Your task to perform on an android device: Add "bose soundsport free" to the cart on costco.com, then select checkout. Image 0: 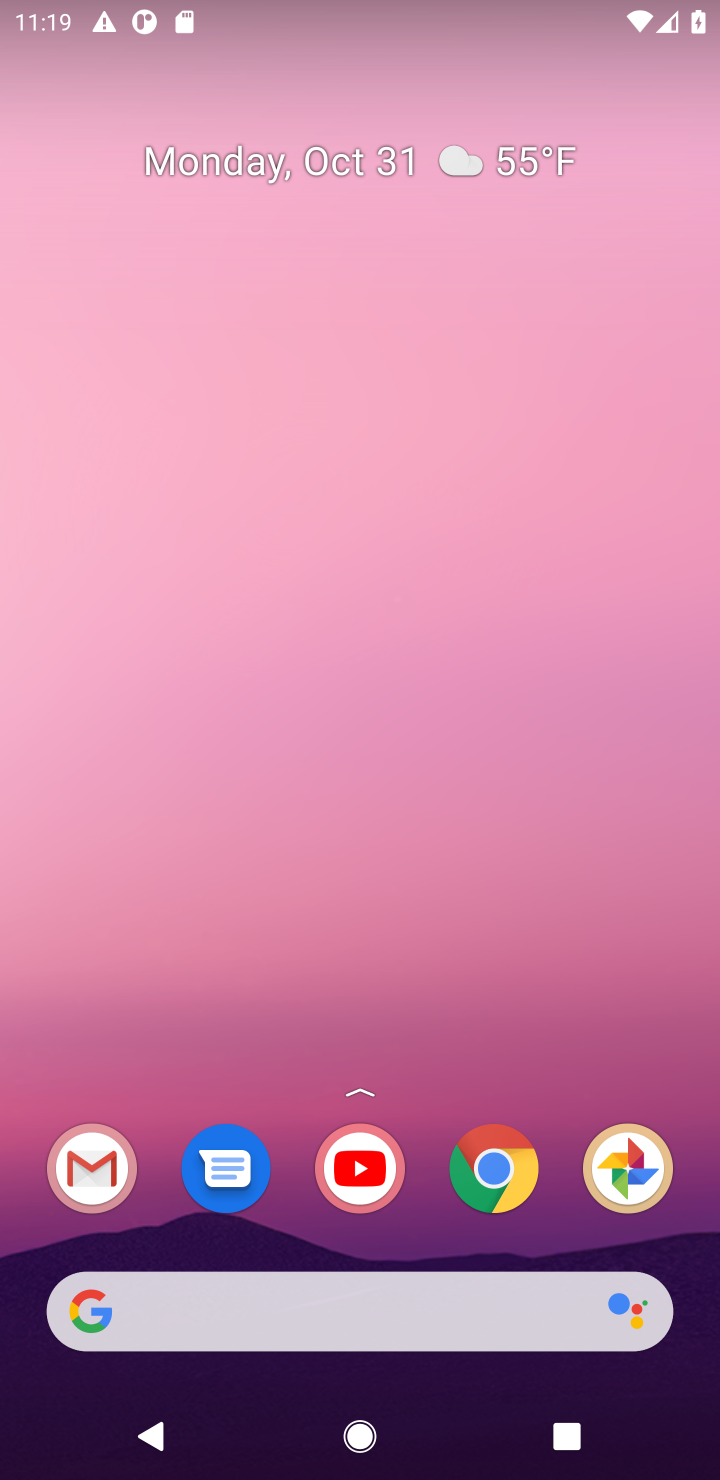
Step 0: click (497, 1170)
Your task to perform on an android device: Add "bose soundsport free" to the cart on costco.com, then select checkout. Image 1: 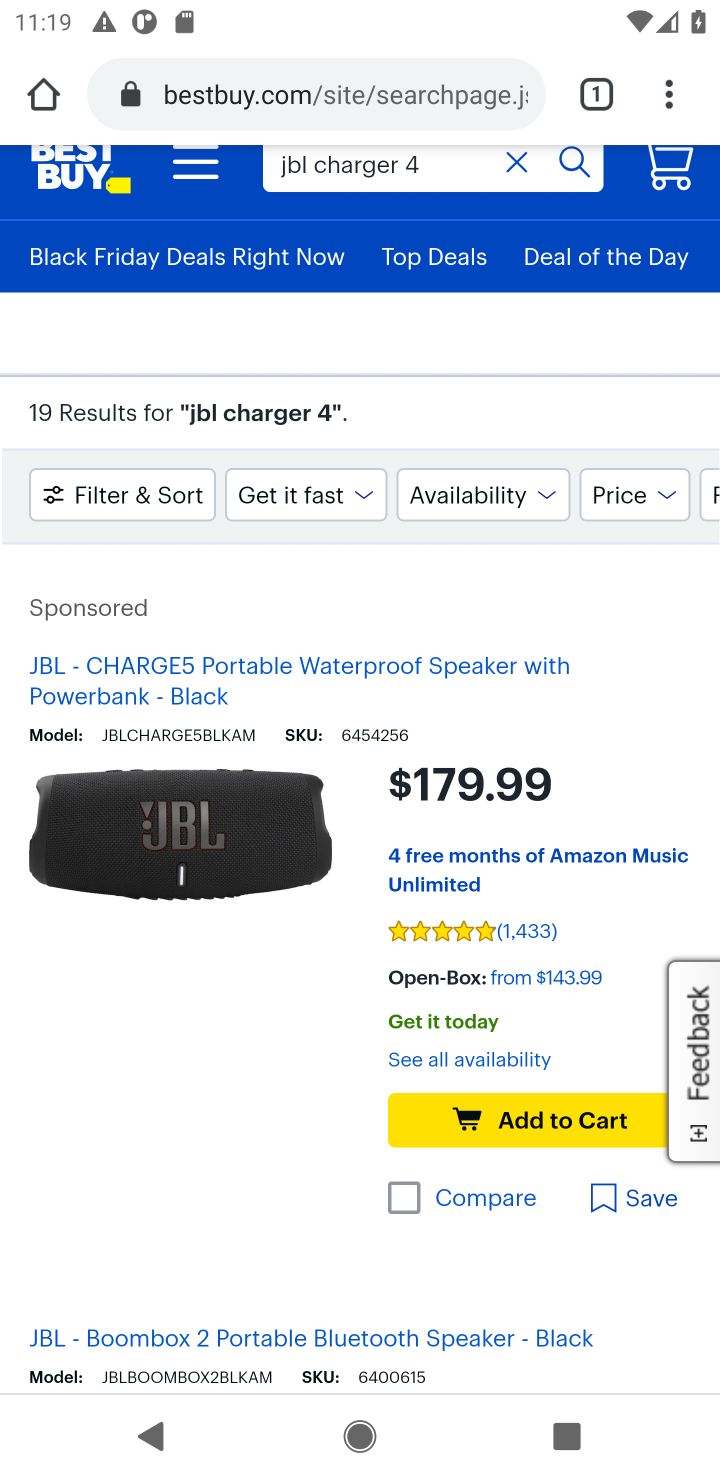
Step 1: click (454, 101)
Your task to perform on an android device: Add "bose soundsport free" to the cart on costco.com, then select checkout. Image 2: 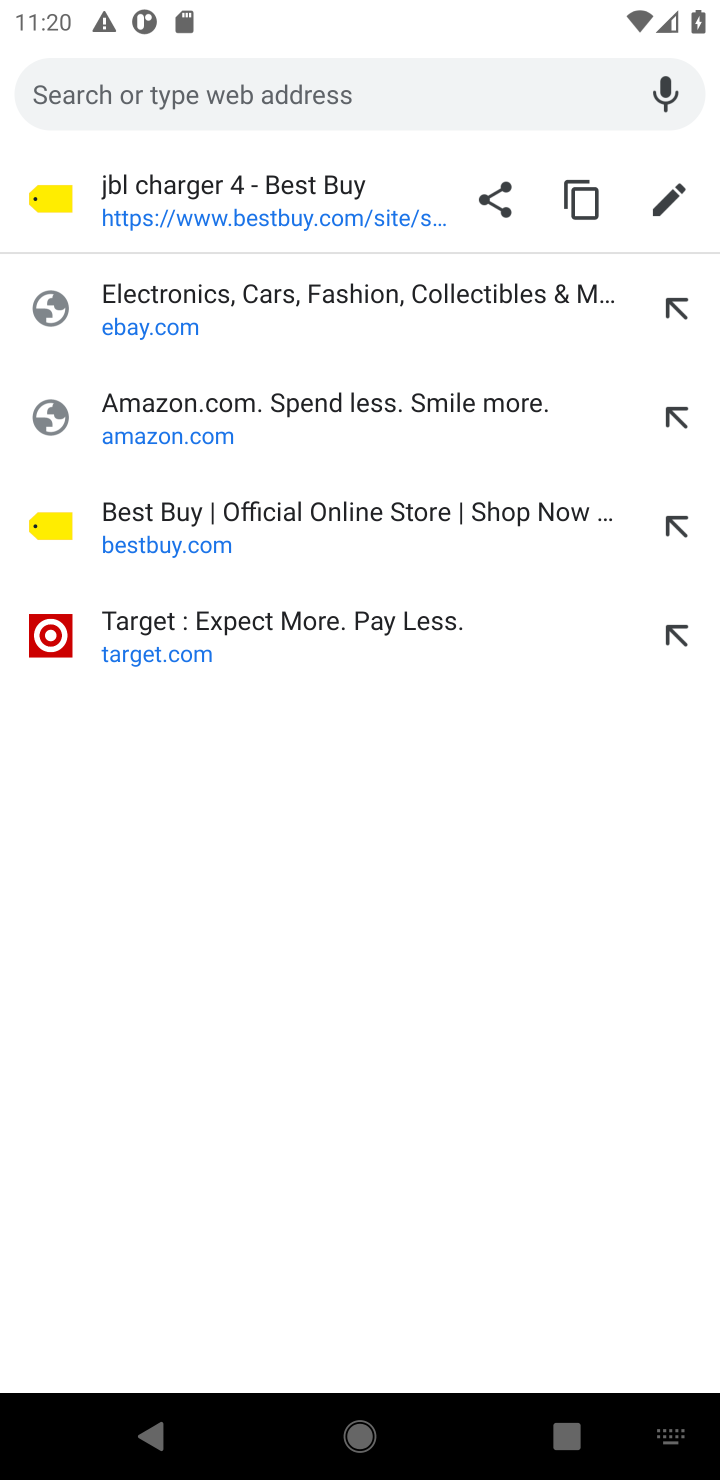
Step 2: type "usb-c to usb-b"
Your task to perform on an android device: Add "bose soundsport free" to the cart on costco.com, then select checkout. Image 3: 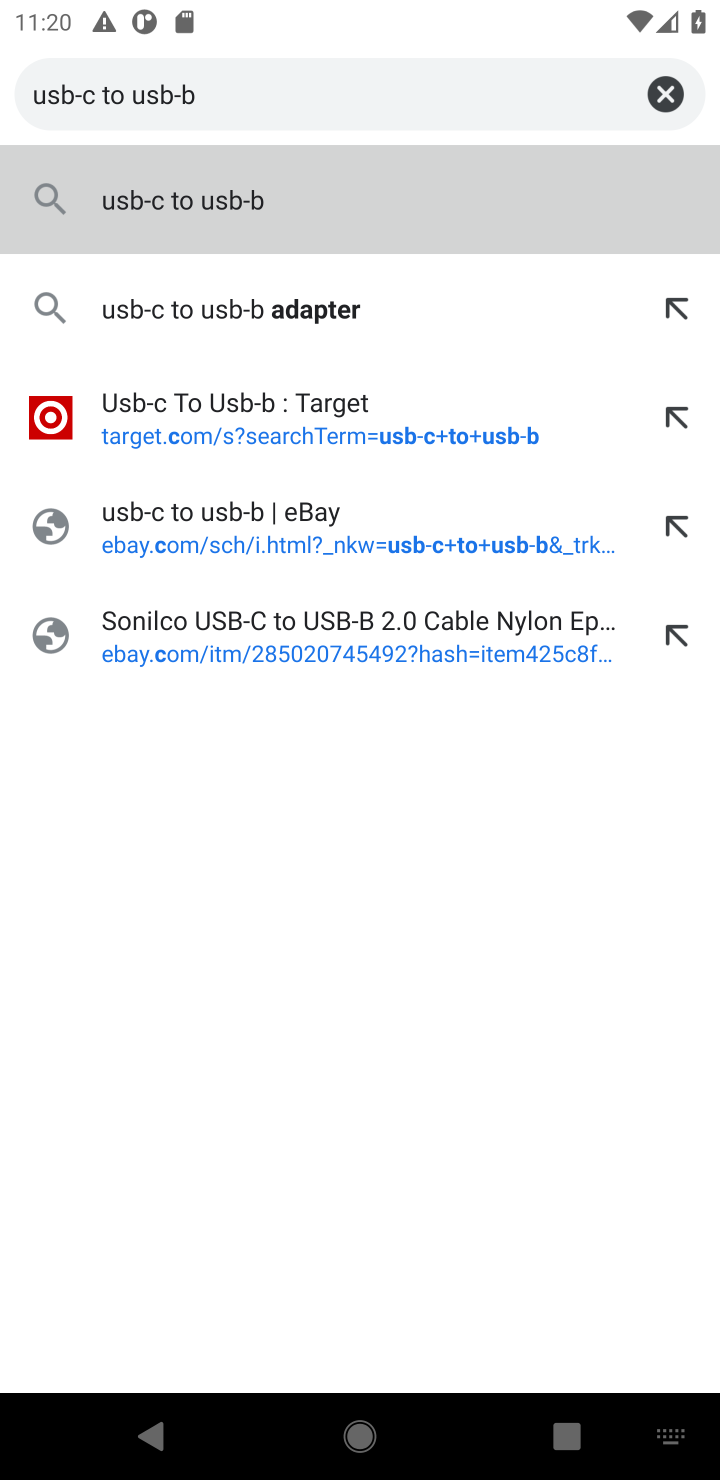
Step 3: click (196, 216)
Your task to perform on an android device: Add "bose soundsport free" to the cart on costco.com, then select checkout. Image 4: 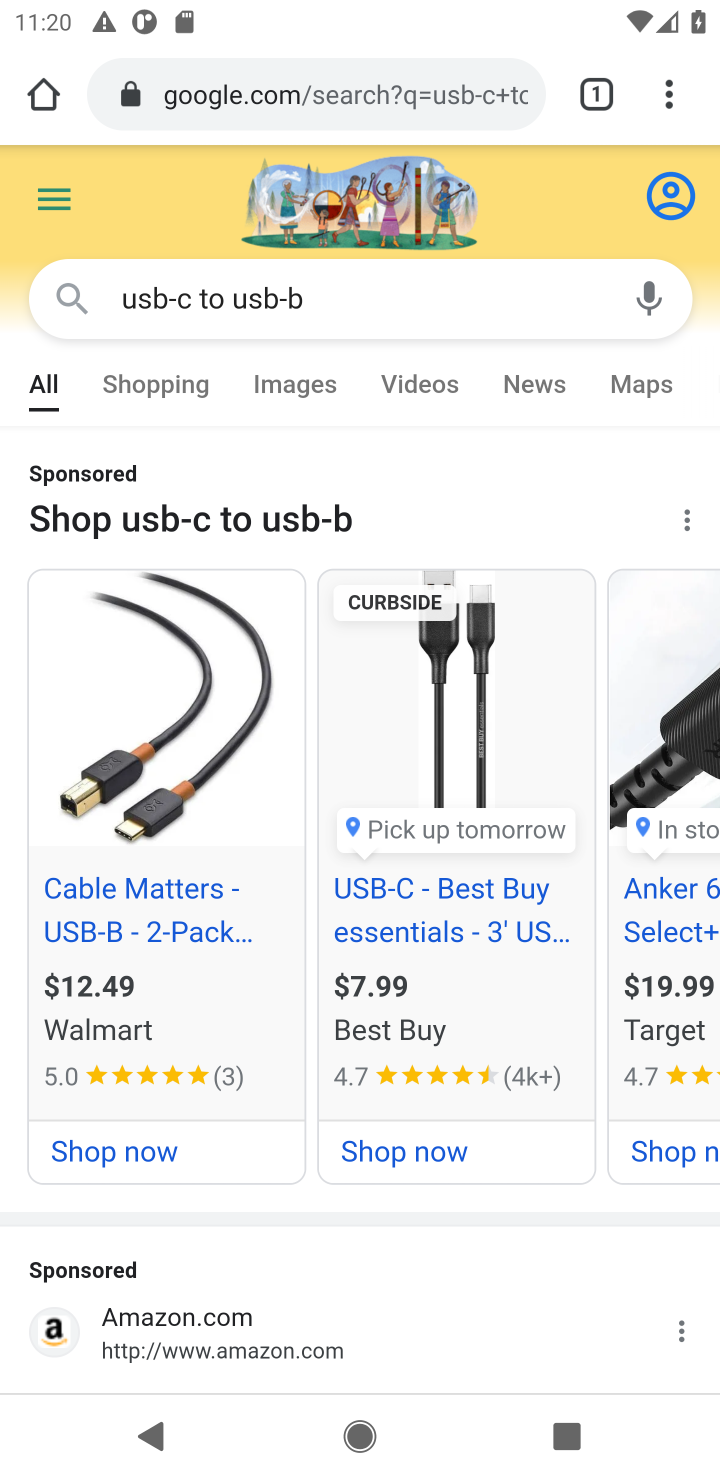
Step 4: click (271, 85)
Your task to perform on an android device: Add "bose soundsport free" to the cart on costco.com, then select checkout. Image 5: 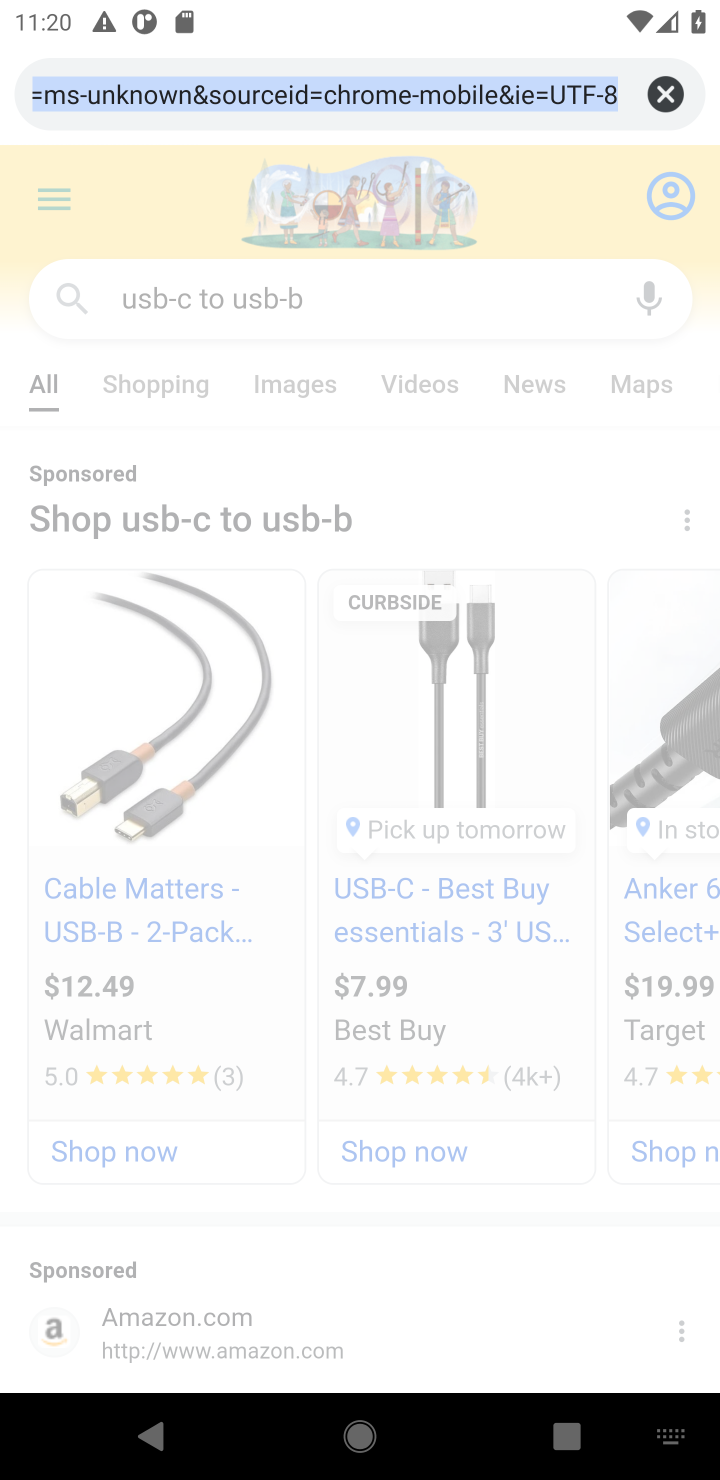
Step 5: type "costco.com"
Your task to perform on an android device: Add "bose soundsport free" to the cart on costco.com, then select checkout. Image 6: 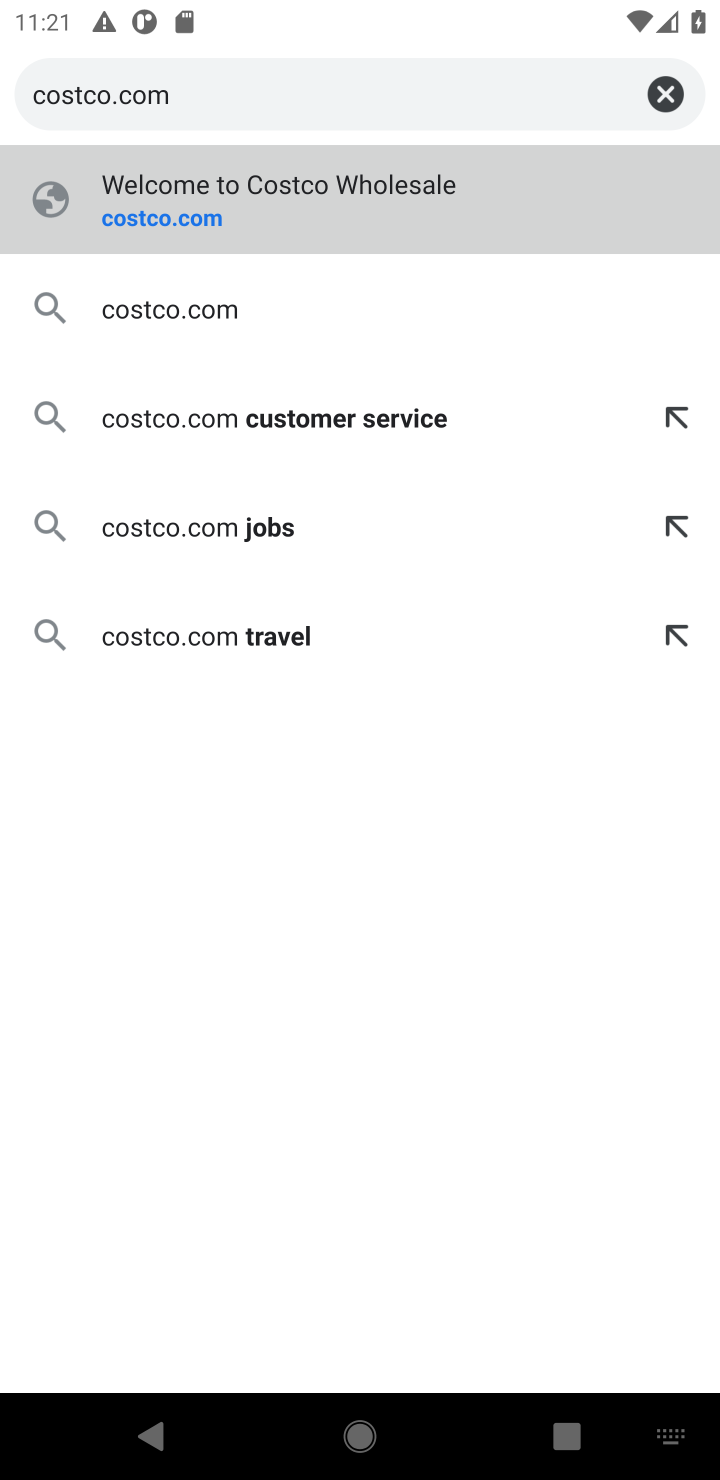
Step 6: click (267, 203)
Your task to perform on an android device: Add "bose soundsport free" to the cart on costco.com, then select checkout. Image 7: 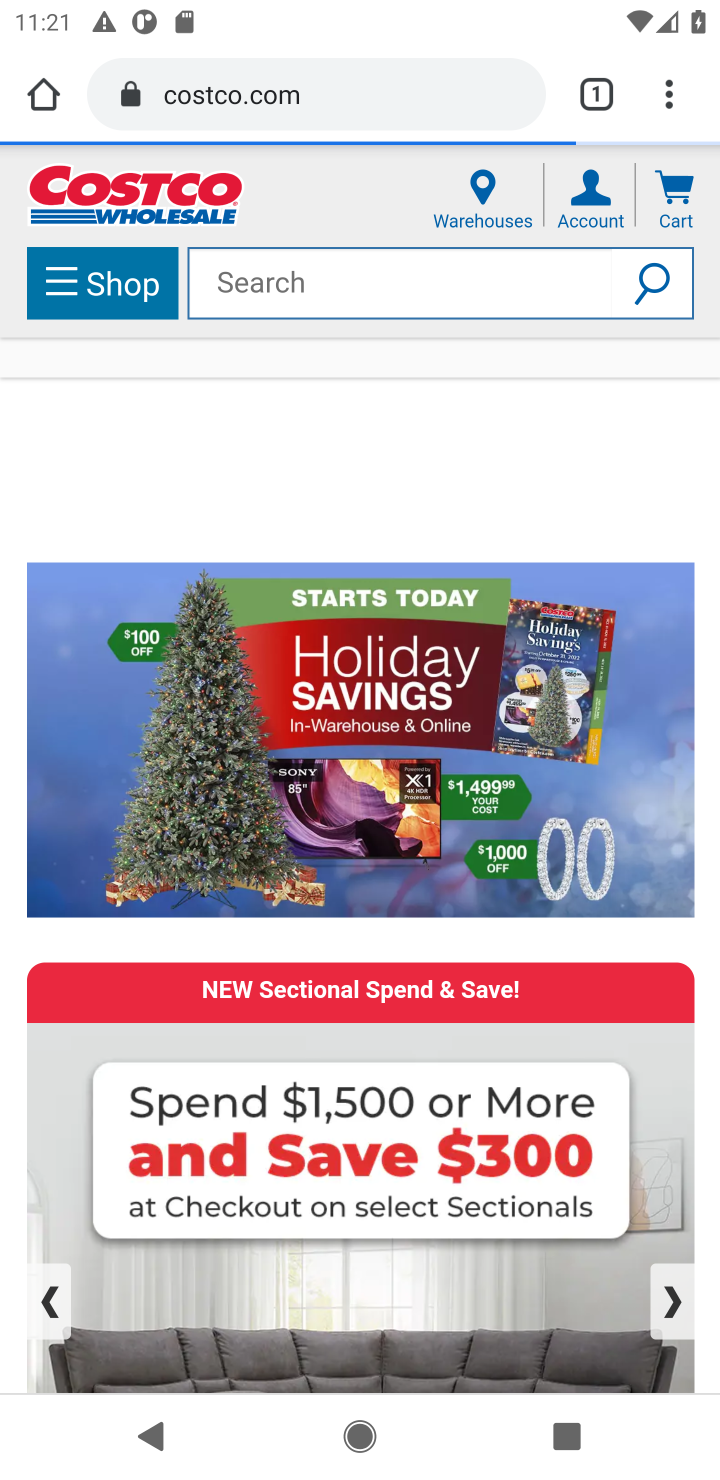
Step 7: click (297, 275)
Your task to perform on an android device: Add "bose soundsport free" to the cart on costco.com, then select checkout. Image 8: 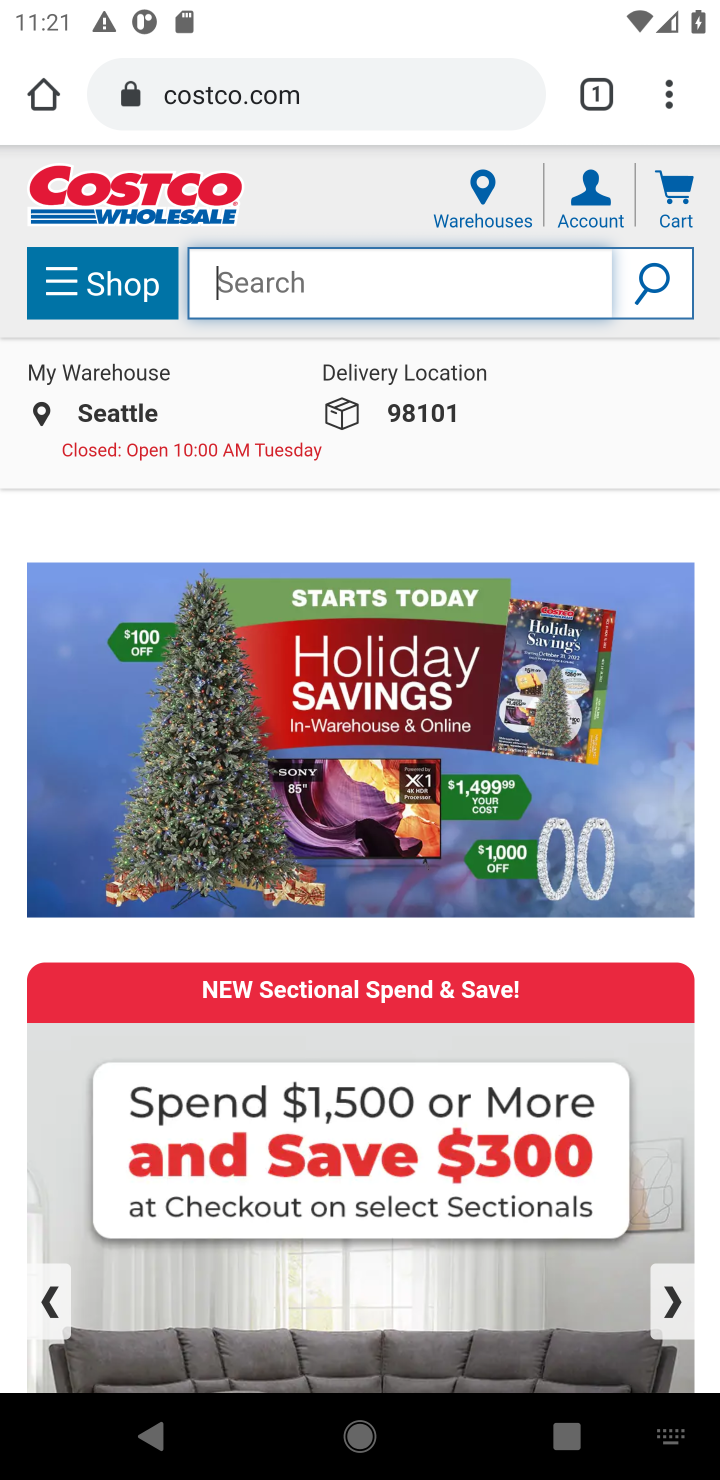
Step 8: click (348, 294)
Your task to perform on an android device: Add "bose soundsport free" to the cart on costco.com, then select checkout. Image 9: 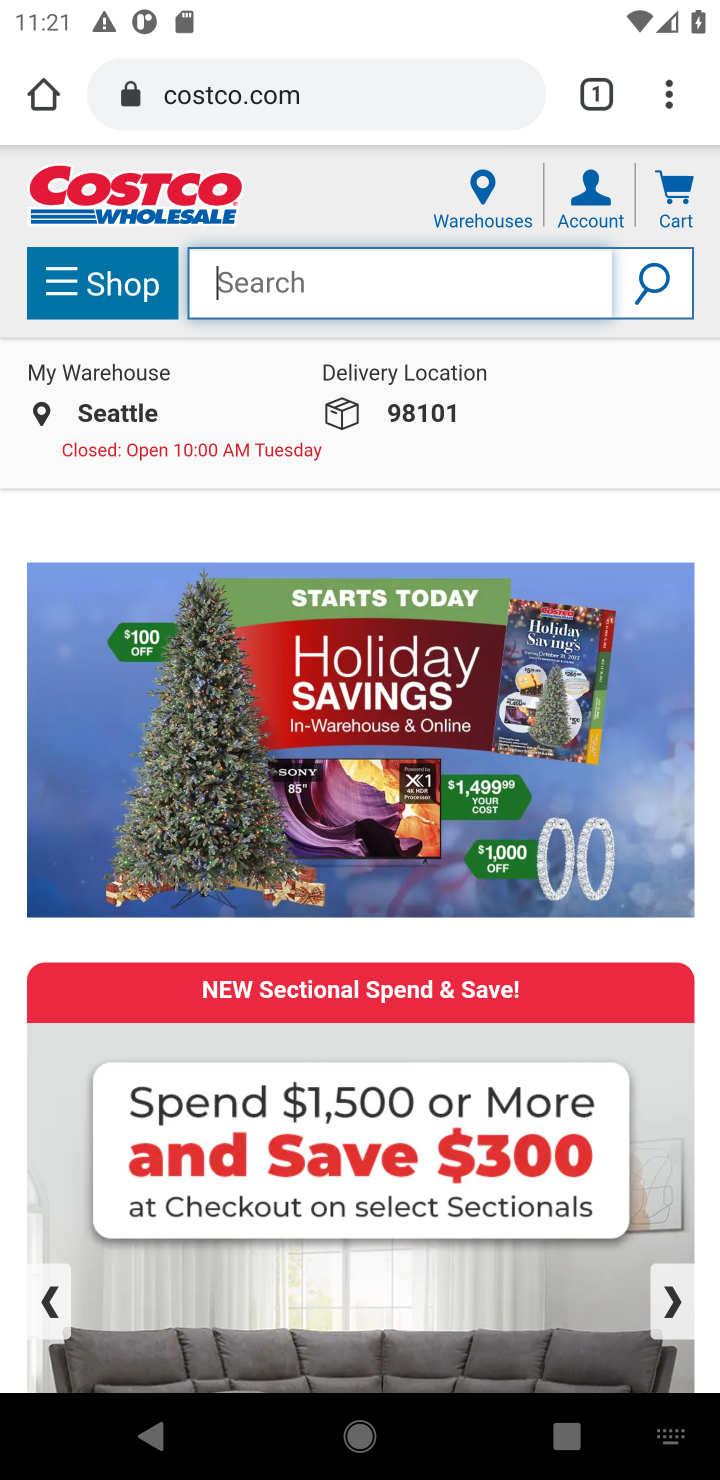
Step 9: type "bose soundsport free"
Your task to perform on an android device: Add "bose soundsport free" to the cart on costco.com, then select checkout. Image 10: 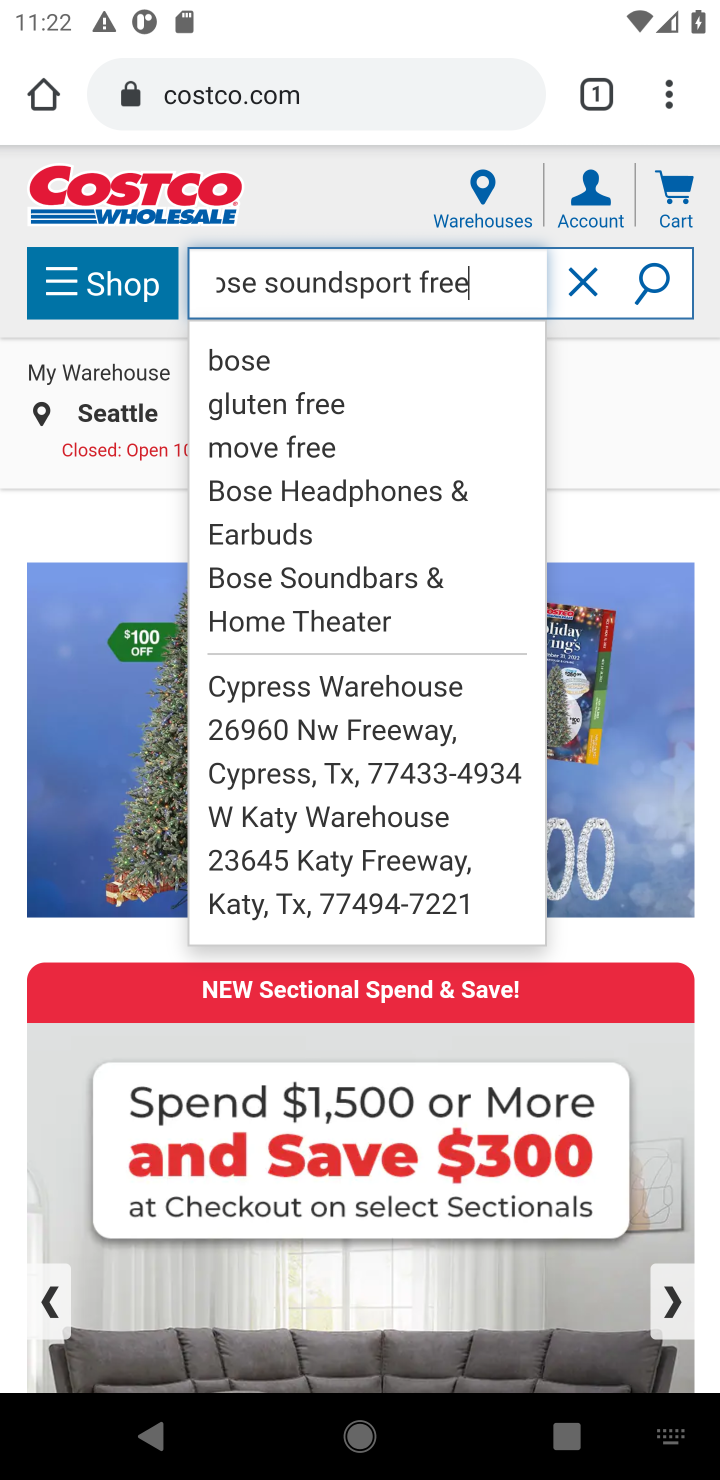
Step 10: click (664, 274)
Your task to perform on an android device: Add "bose soundsport free" to the cart on costco.com, then select checkout. Image 11: 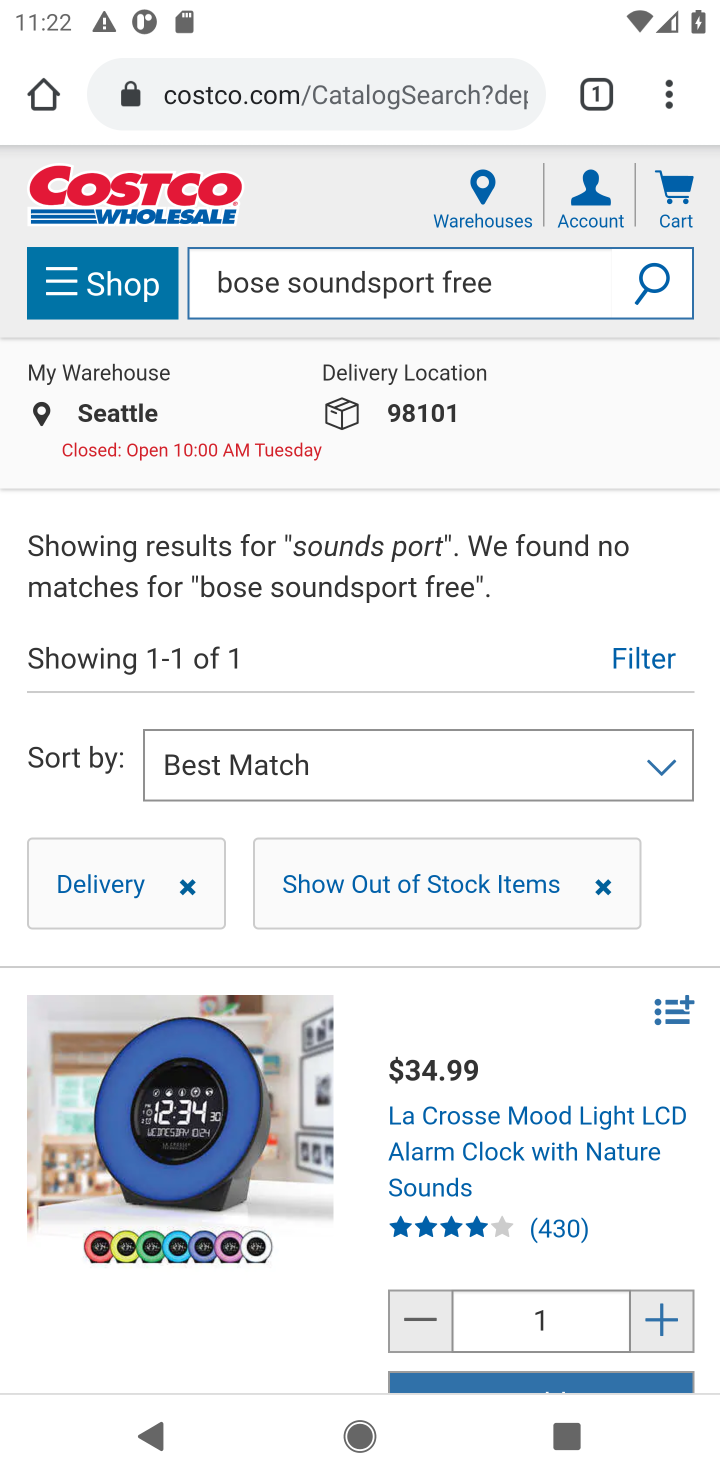
Step 11: drag from (482, 944) to (481, 463)
Your task to perform on an android device: Add "bose soundsport free" to the cart on costco.com, then select checkout. Image 12: 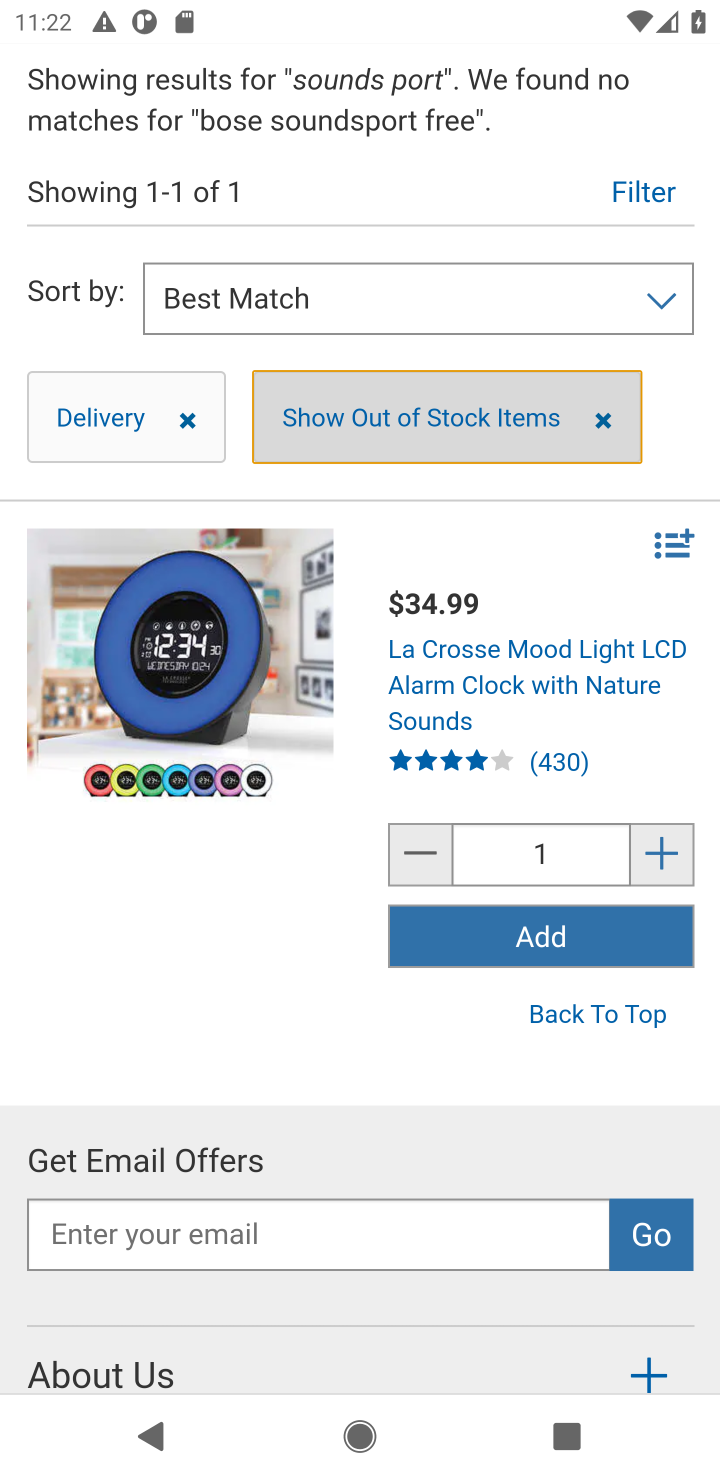
Step 12: drag from (447, 527) to (485, 329)
Your task to perform on an android device: Add "bose soundsport free" to the cart on costco.com, then select checkout. Image 13: 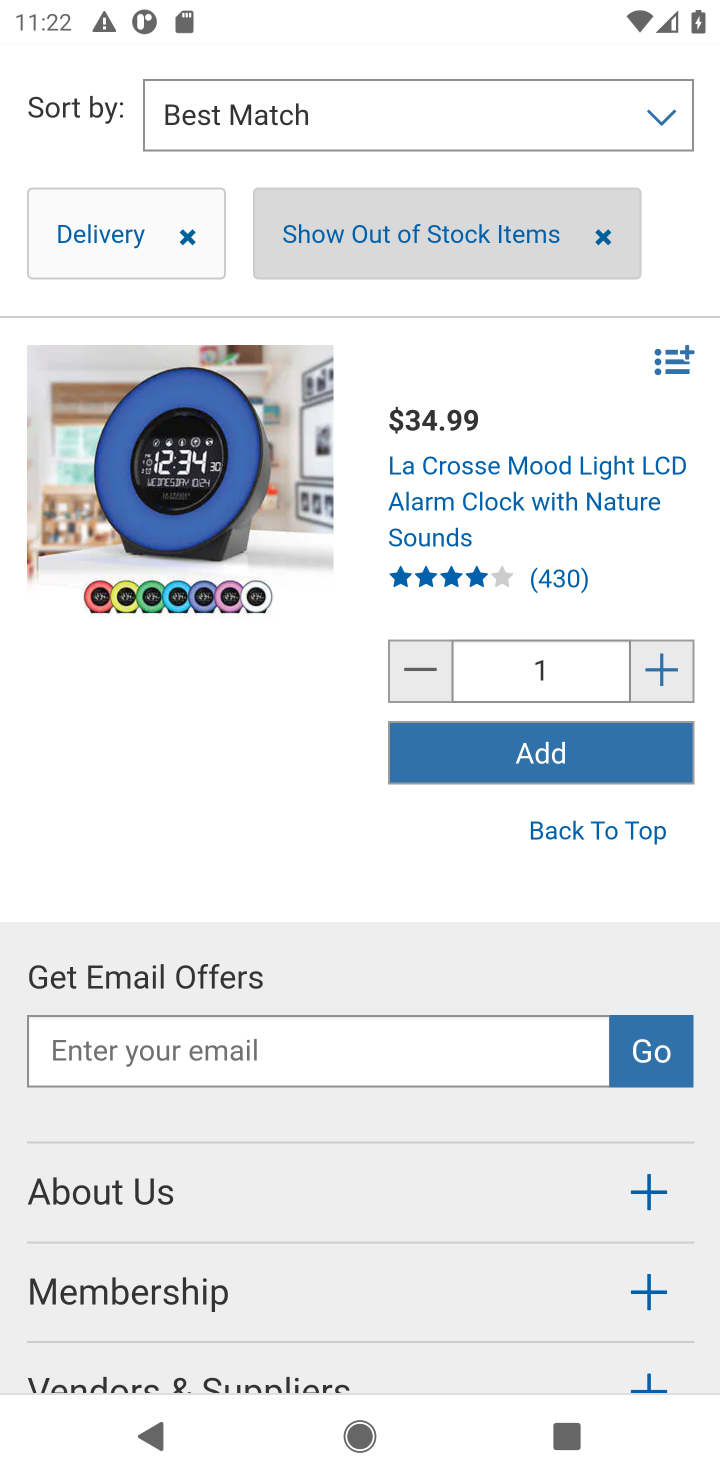
Step 13: drag from (335, 968) to (392, 306)
Your task to perform on an android device: Add "bose soundsport free" to the cart on costco.com, then select checkout. Image 14: 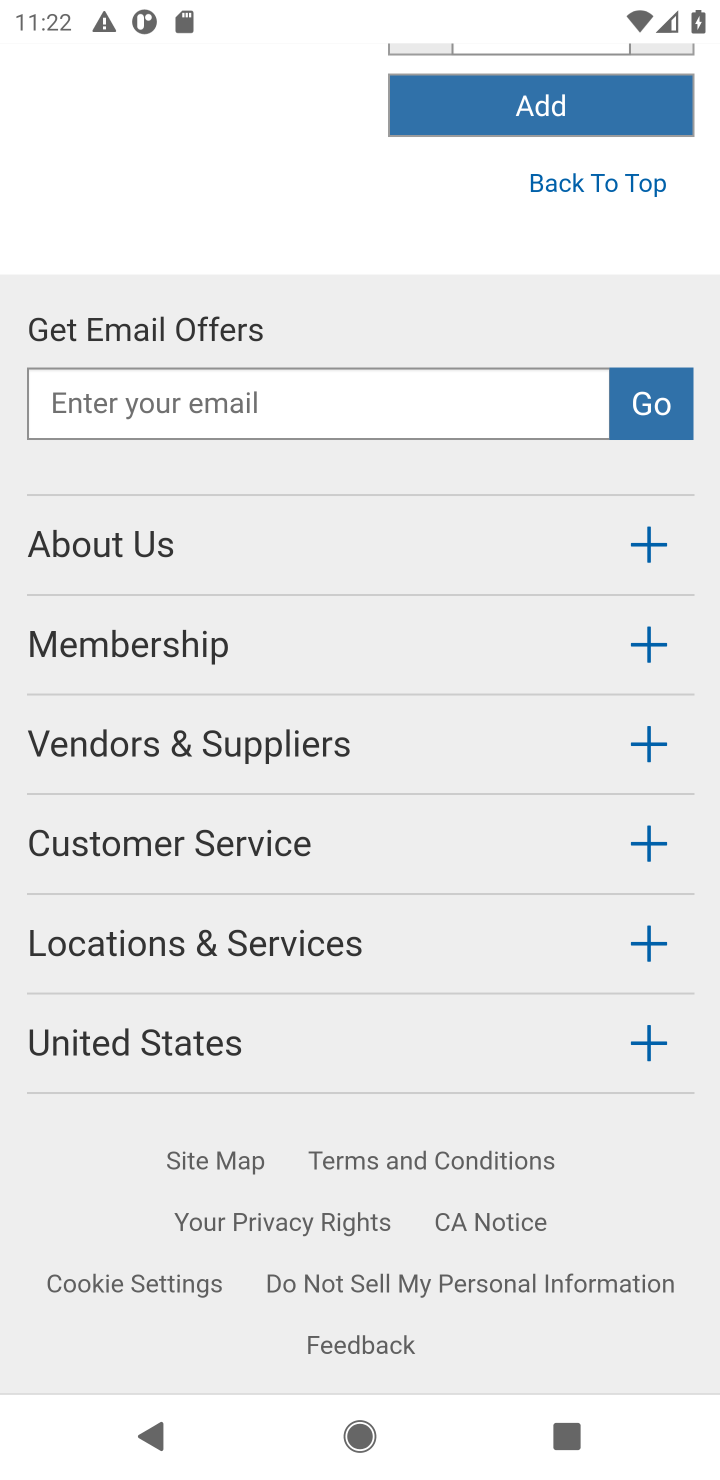
Step 14: drag from (276, 1219) to (304, 1412)
Your task to perform on an android device: Add "bose soundsport free" to the cart on costco.com, then select checkout. Image 15: 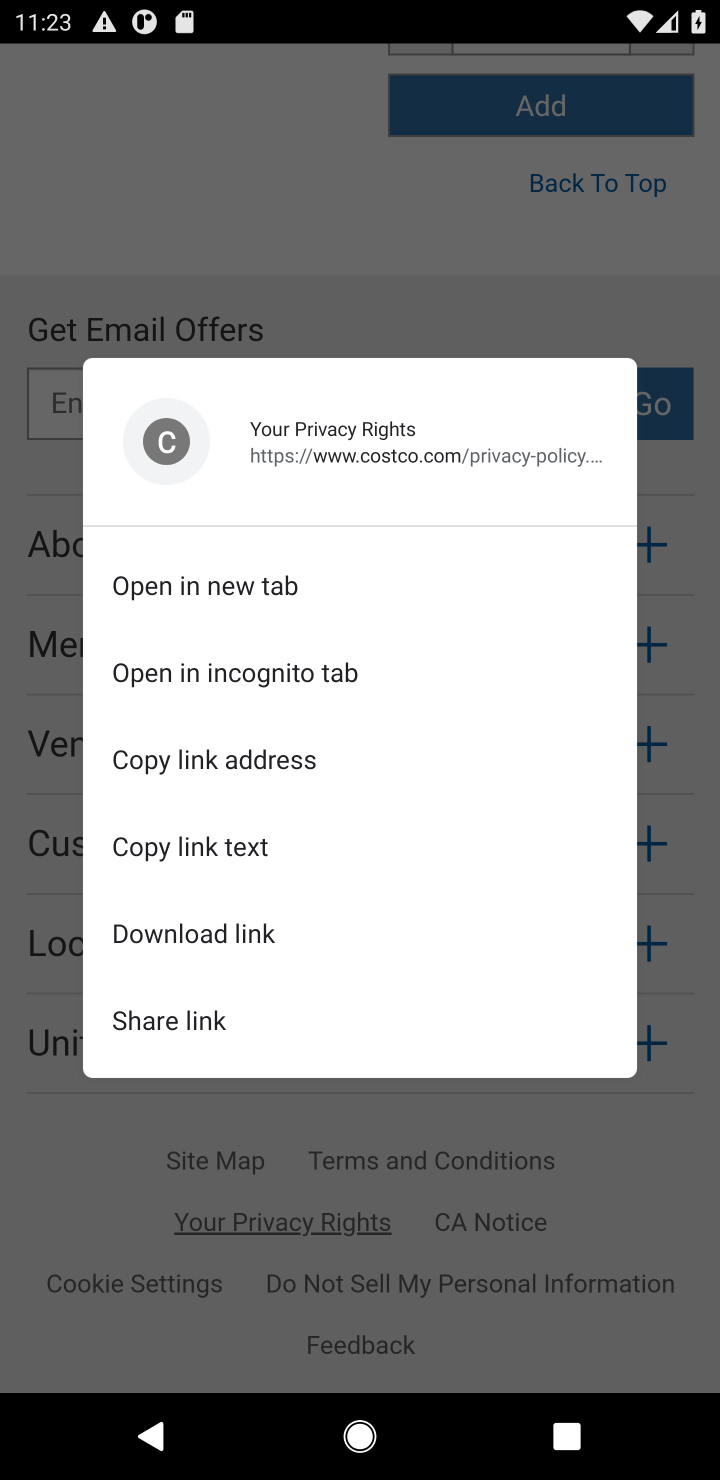
Step 15: click (268, 257)
Your task to perform on an android device: Add "bose soundsport free" to the cart on costco.com, then select checkout. Image 16: 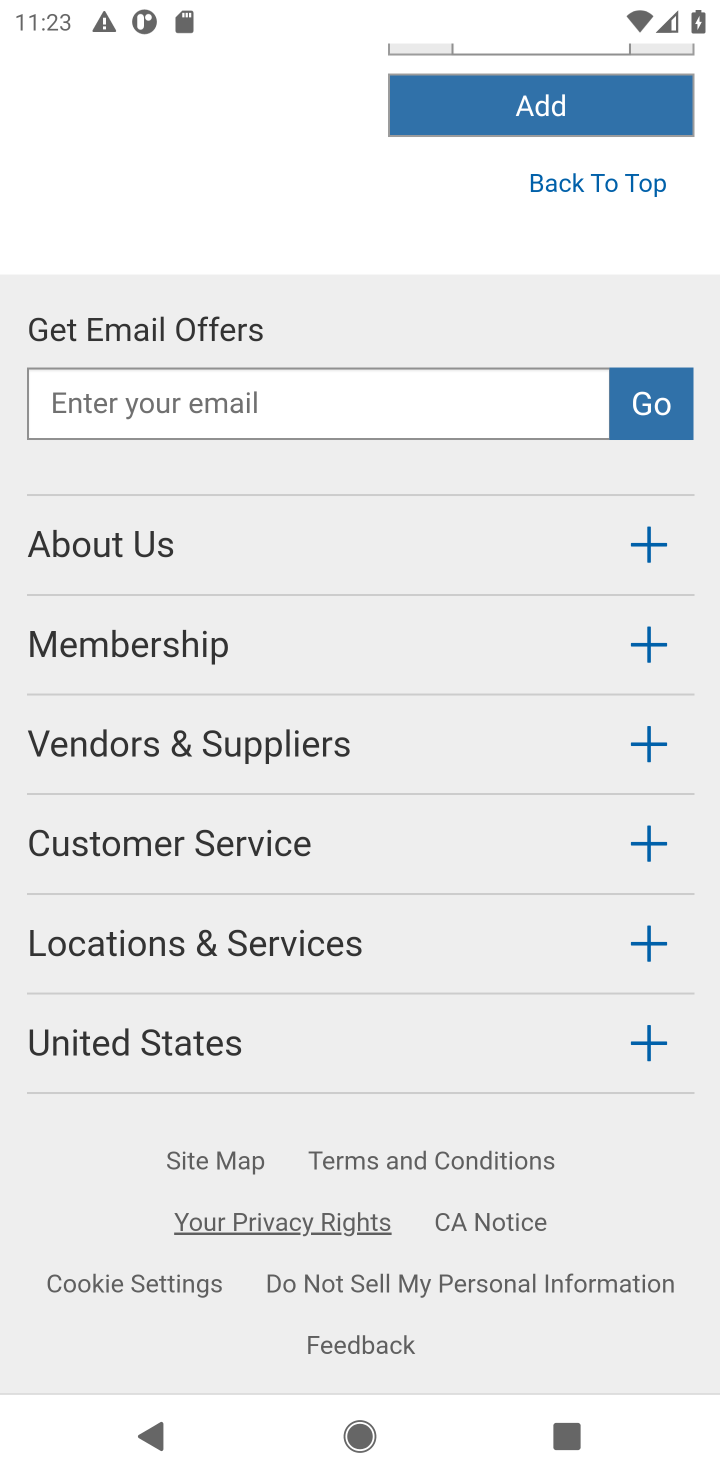
Step 16: drag from (268, 257) to (260, 838)
Your task to perform on an android device: Add "bose soundsport free" to the cart on costco.com, then select checkout. Image 17: 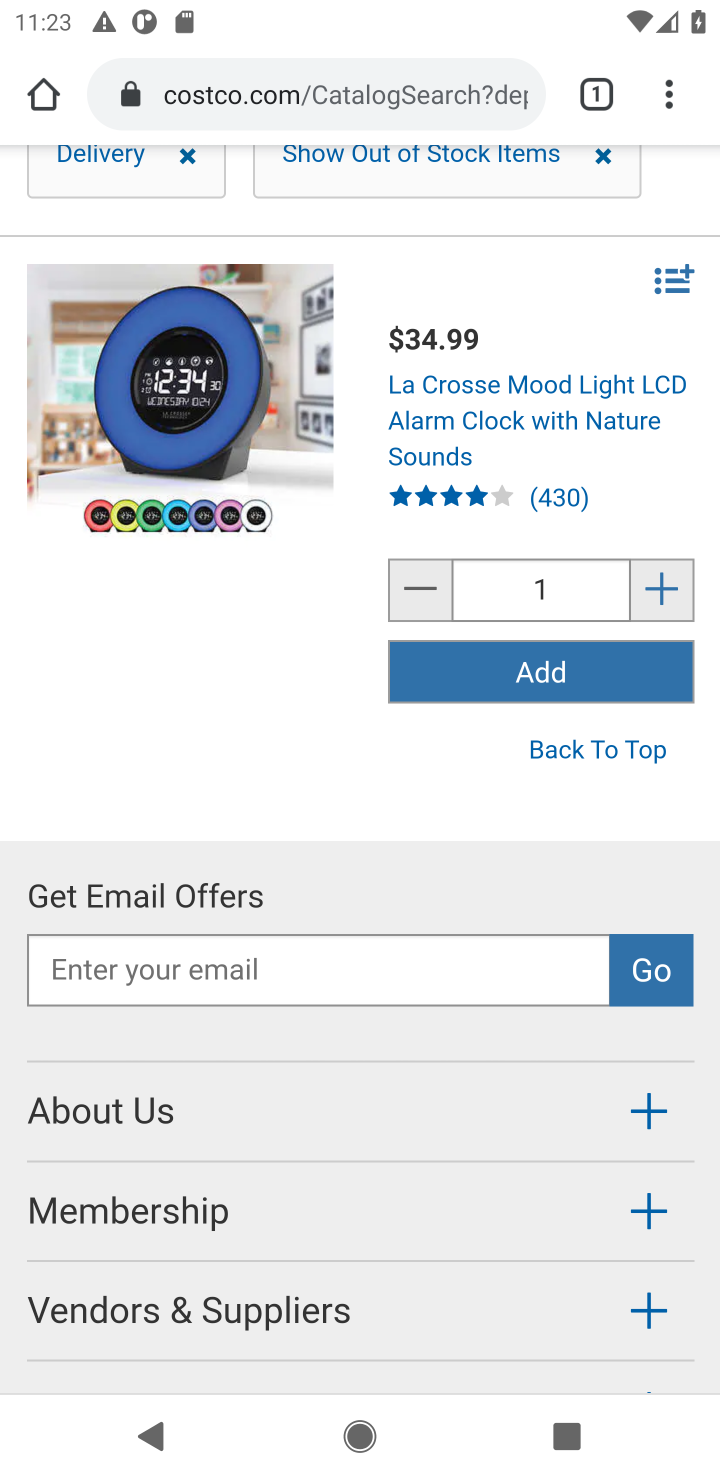
Step 17: drag from (173, 1340) to (222, 1472)
Your task to perform on an android device: Add "bose soundsport free" to the cart on costco.com, then select checkout. Image 18: 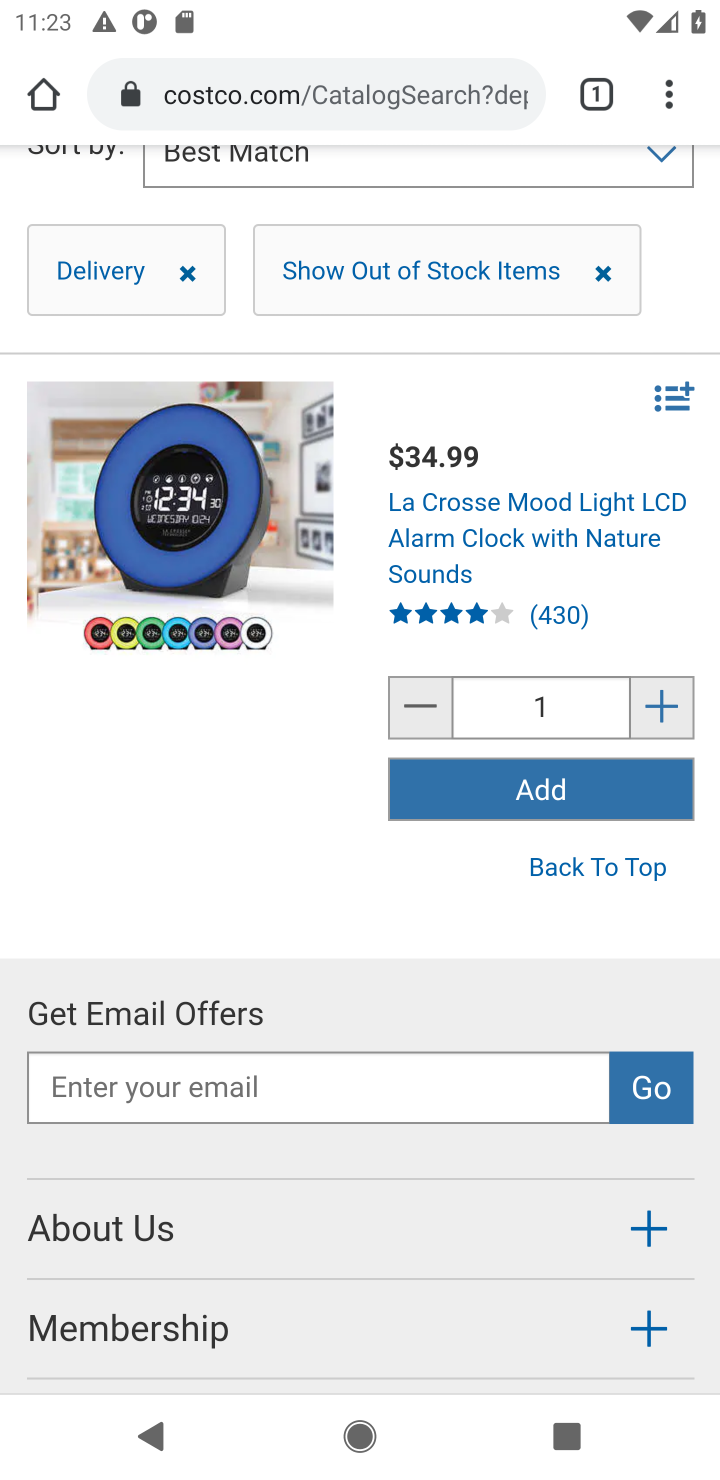
Step 18: drag from (230, 310) to (226, 1046)
Your task to perform on an android device: Add "bose soundsport free" to the cart on costco.com, then select checkout. Image 19: 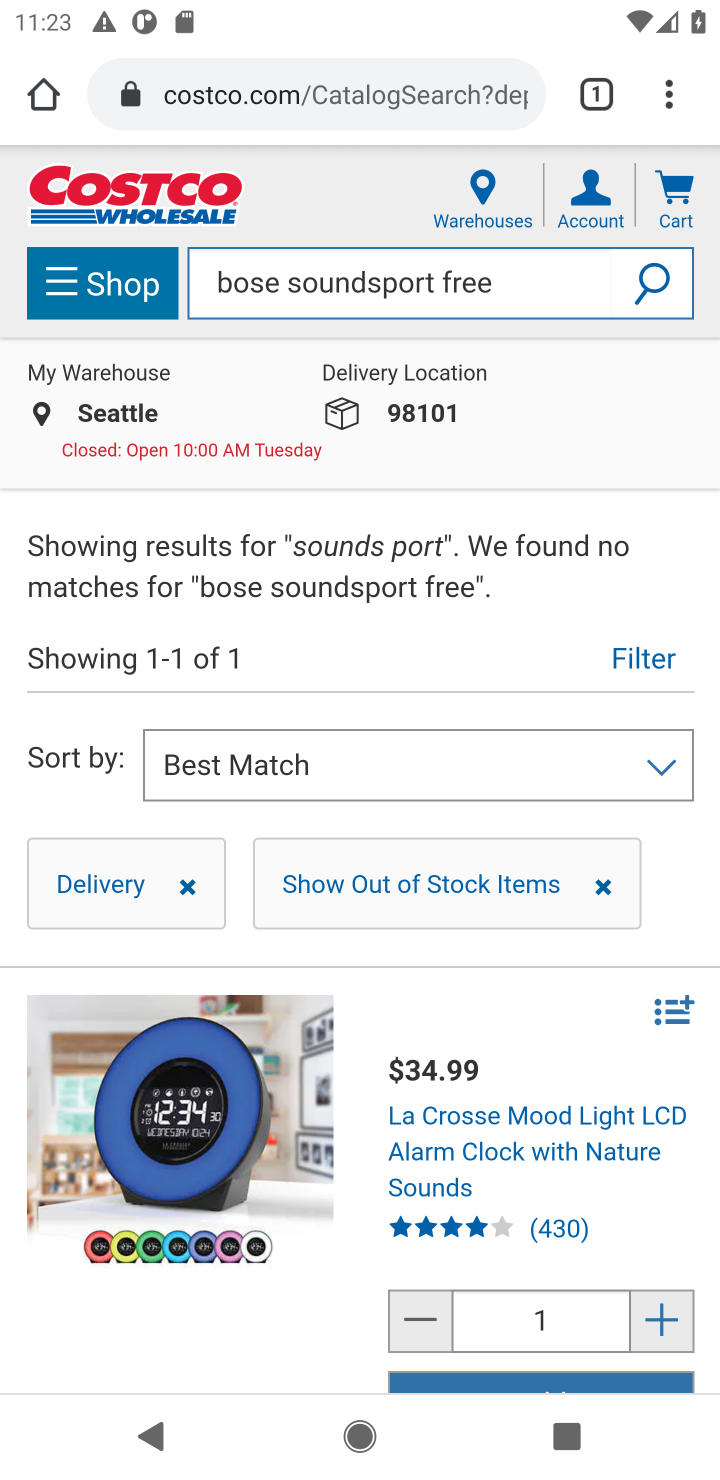
Step 19: drag from (476, 635) to (473, 1009)
Your task to perform on an android device: Add "bose soundsport free" to the cart on costco.com, then select checkout. Image 20: 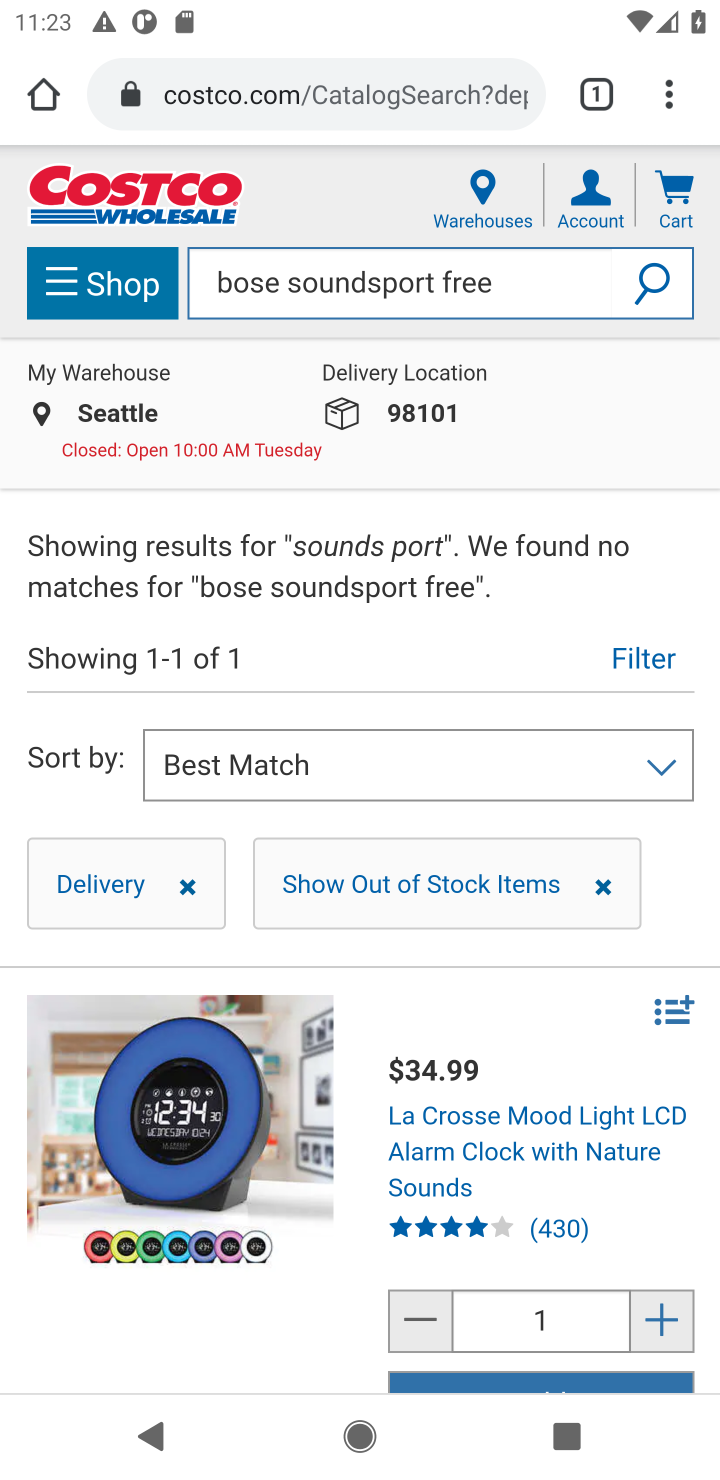
Step 20: click (655, 288)
Your task to perform on an android device: Add "bose soundsport free" to the cart on costco.com, then select checkout. Image 21: 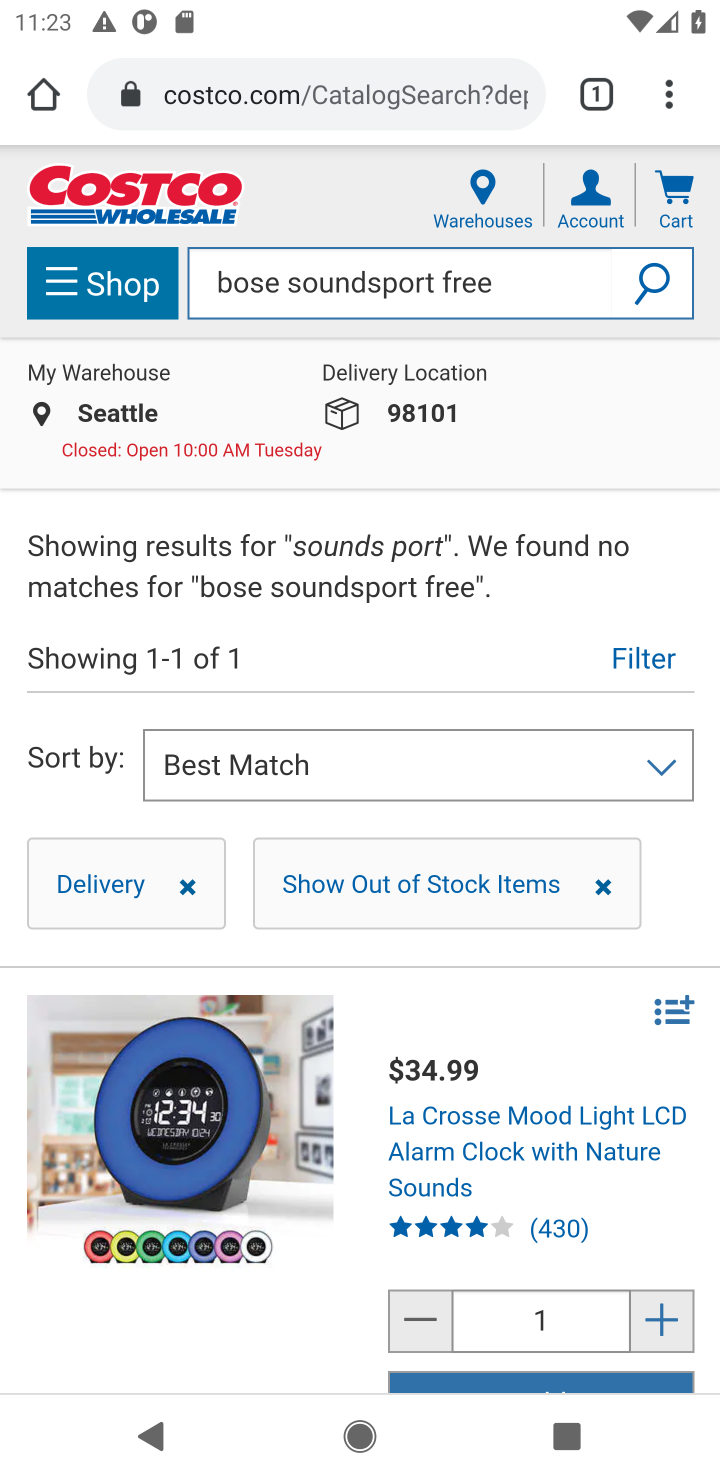
Step 21: task complete